Your task to perform on an android device: turn on sleep mode Image 0: 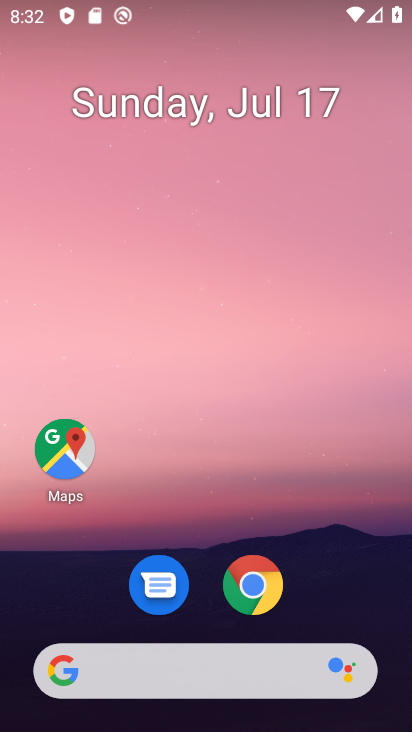
Step 0: drag from (208, 648) to (322, 91)
Your task to perform on an android device: turn on sleep mode Image 1: 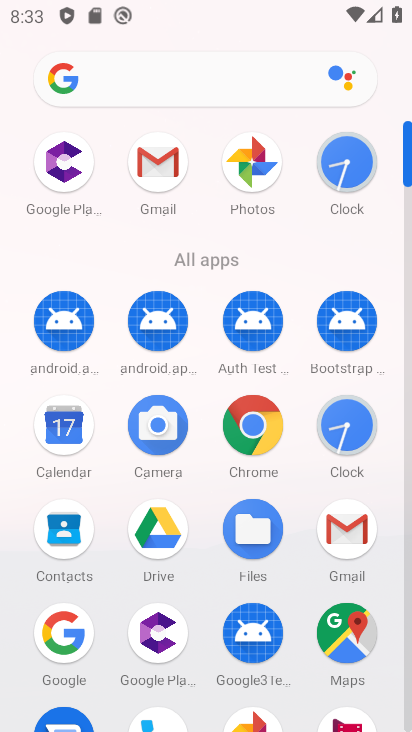
Step 1: drag from (192, 603) to (337, 198)
Your task to perform on an android device: turn on sleep mode Image 2: 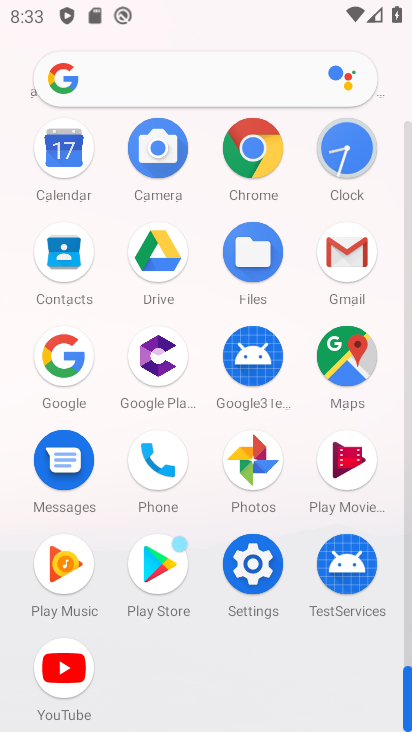
Step 2: click (260, 574)
Your task to perform on an android device: turn on sleep mode Image 3: 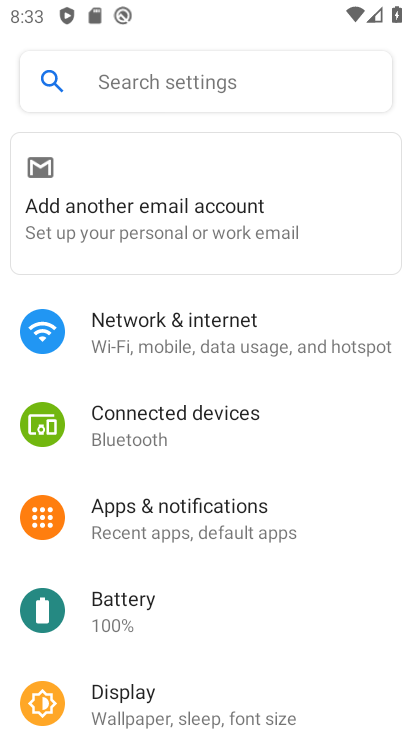
Step 3: click (182, 704)
Your task to perform on an android device: turn on sleep mode Image 4: 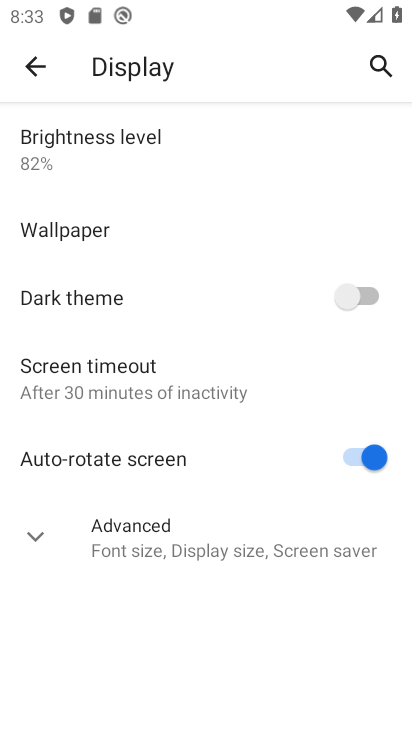
Step 4: click (132, 539)
Your task to perform on an android device: turn on sleep mode Image 5: 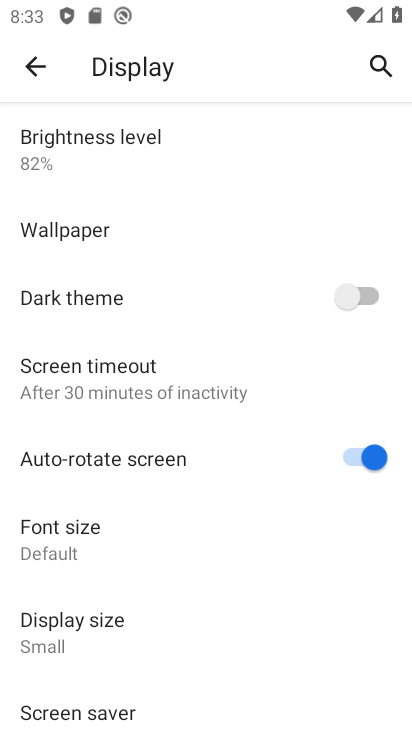
Step 5: task complete